Your task to perform on an android device: Open Reddit.com Image 0: 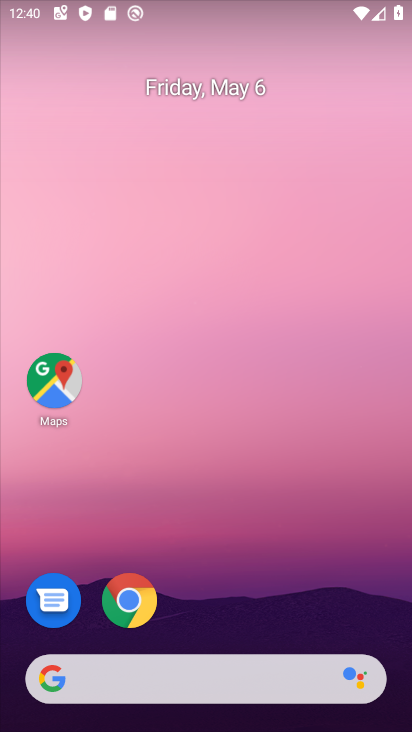
Step 0: drag from (337, 619) to (355, 65)
Your task to perform on an android device: Open Reddit.com Image 1: 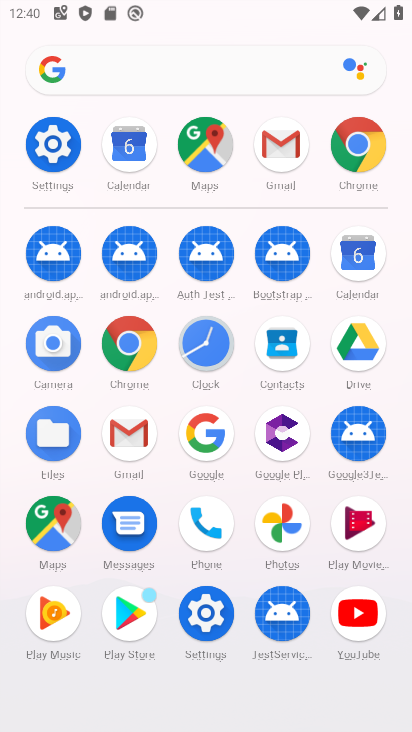
Step 1: click (368, 154)
Your task to perform on an android device: Open Reddit.com Image 2: 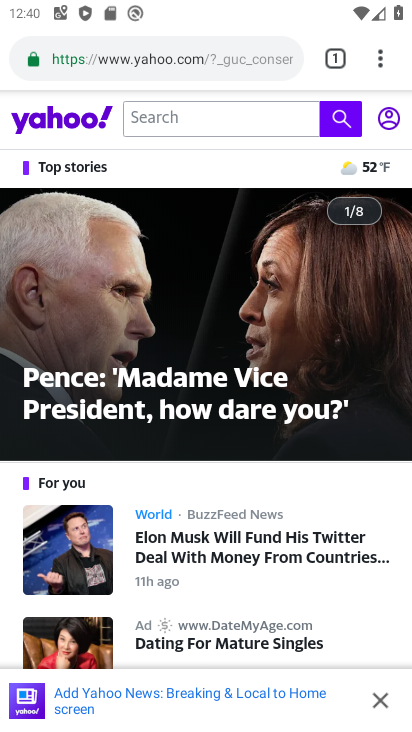
Step 2: press back button
Your task to perform on an android device: Open Reddit.com Image 3: 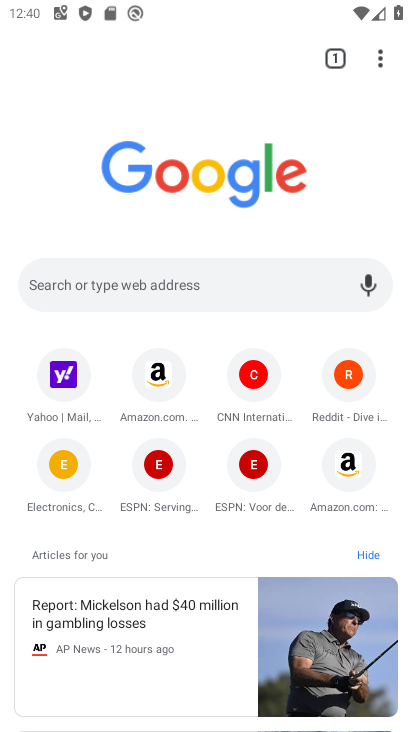
Step 3: click (190, 290)
Your task to perform on an android device: Open Reddit.com Image 4: 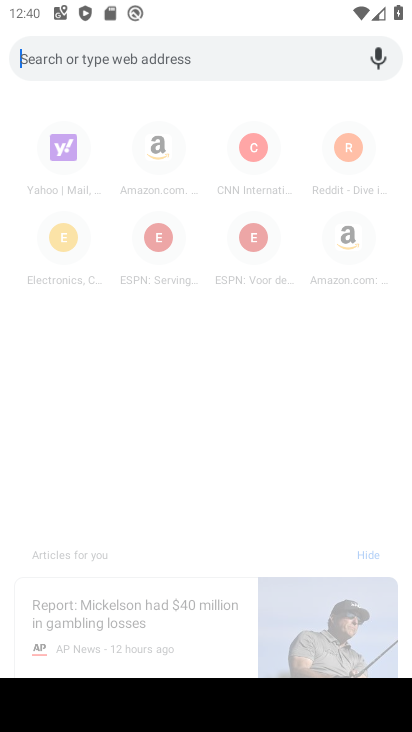
Step 4: type "reddit.com"
Your task to perform on an android device: Open Reddit.com Image 5: 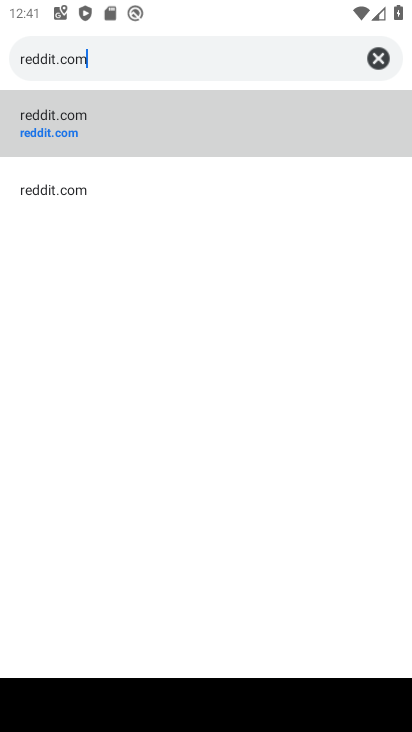
Step 5: click (196, 141)
Your task to perform on an android device: Open Reddit.com Image 6: 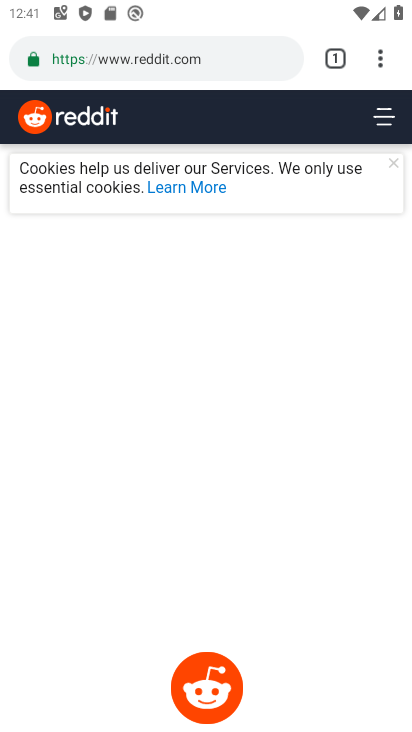
Step 6: task complete